Your task to perform on an android device: What is the news today? Image 0: 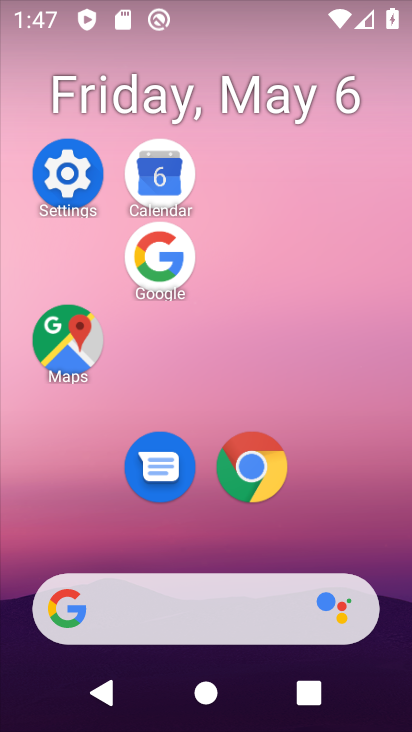
Step 0: click (148, 247)
Your task to perform on an android device: What is the news today? Image 1: 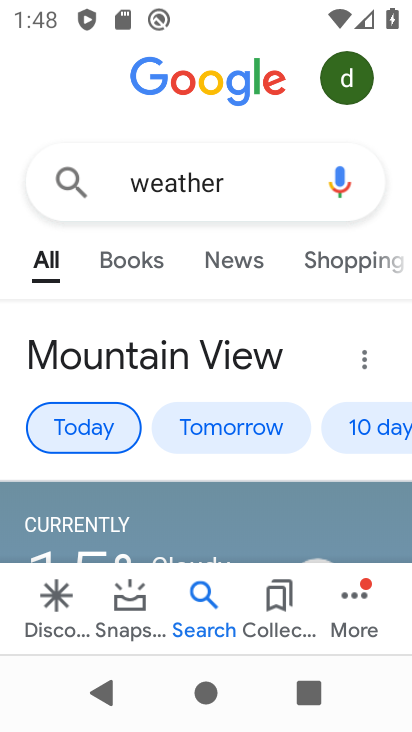
Step 1: click (257, 153)
Your task to perform on an android device: What is the news today? Image 2: 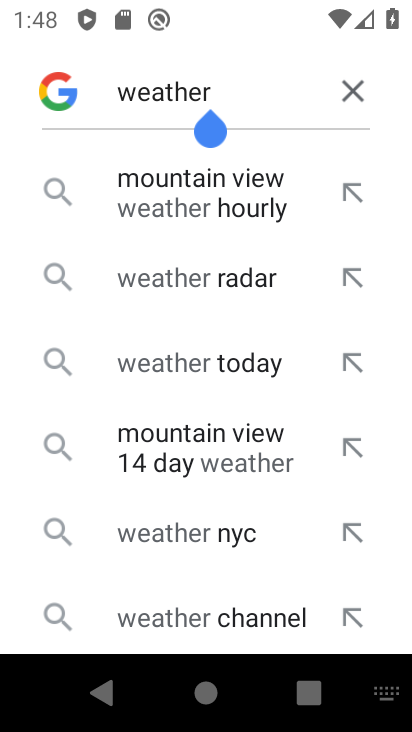
Step 2: click (354, 87)
Your task to perform on an android device: What is the news today? Image 3: 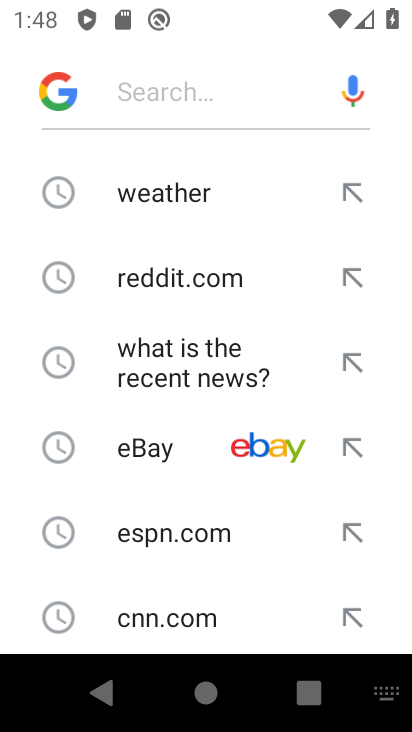
Step 3: drag from (191, 515) to (218, 139)
Your task to perform on an android device: What is the news today? Image 4: 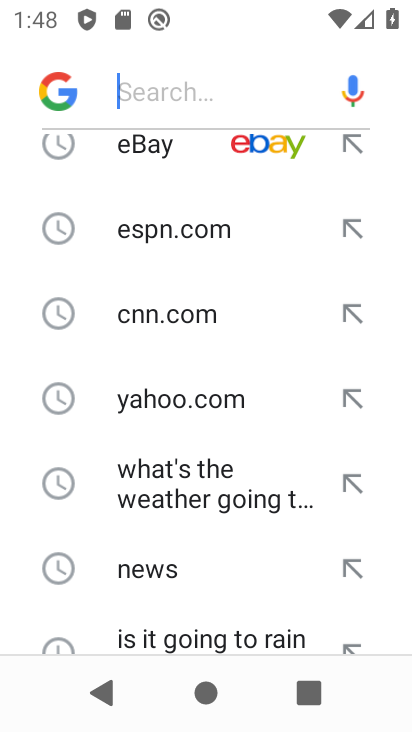
Step 4: drag from (196, 458) to (169, 211)
Your task to perform on an android device: What is the news today? Image 5: 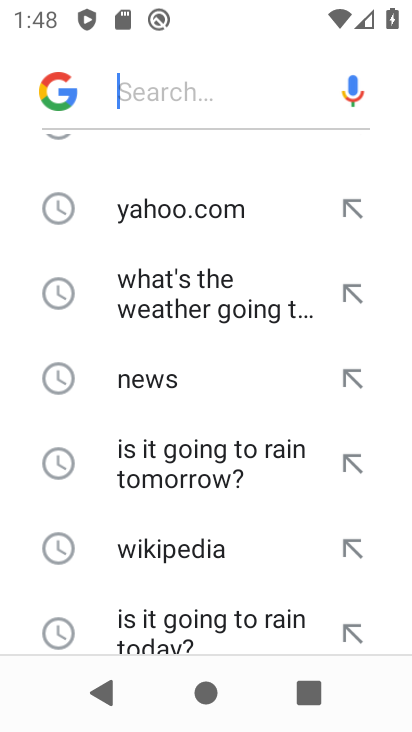
Step 5: click (174, 377)
Your task to perform on an android device: What is the news today? Image 6: 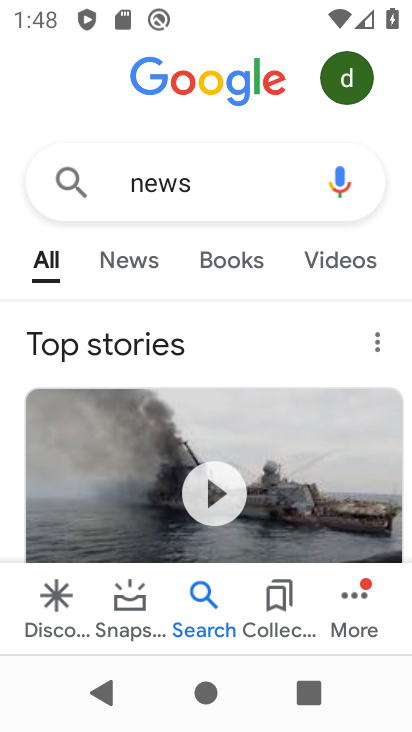
Step 6: task complete